Your task to perform on an android device: manage bookmarks in the chrome app Image 0: 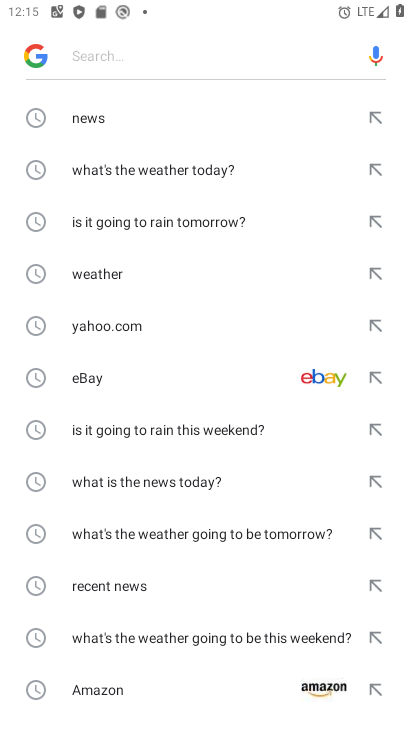
Step 0: press home button
Your task to perform on an android device: manage bookmarks in the chrome app Image 1: 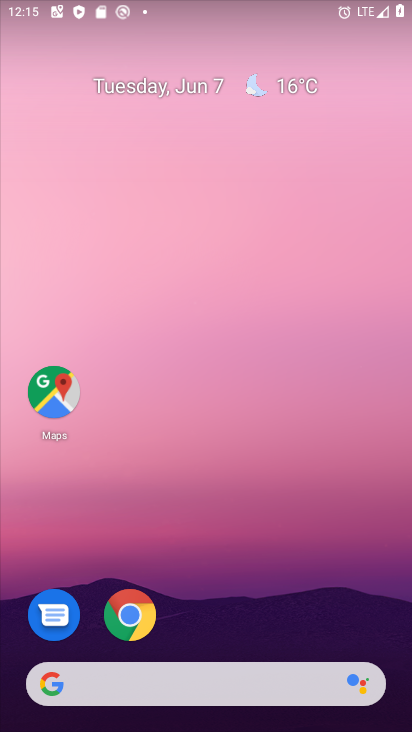
Step 1: click (126, 606)
Your task to perform on an android device: manage bookmarks in the chrome app Image 2: 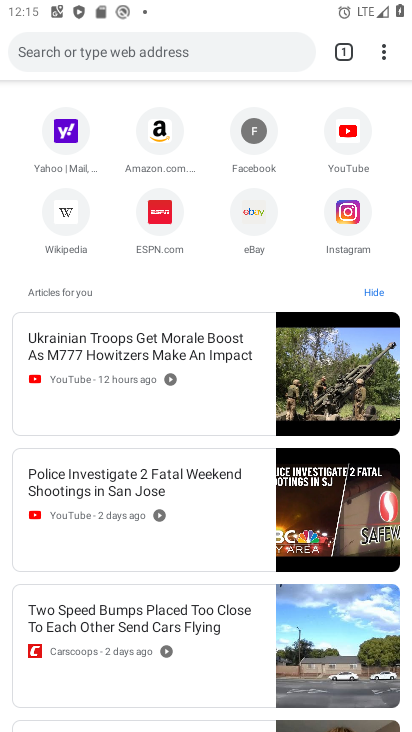
Step 2: click (383, 47)
Your task to perform on an android device: manage bookmarks in the chrome app Image 3: 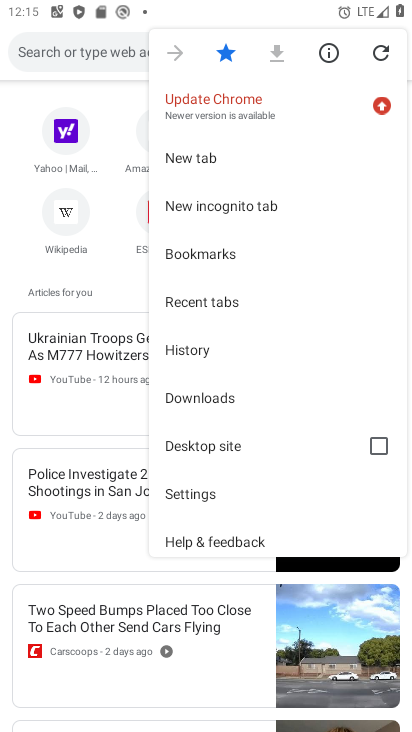
Step 3: click (243, 247)
Your task to perform on an android device: manage bookmarks in the chrome app Image 4: 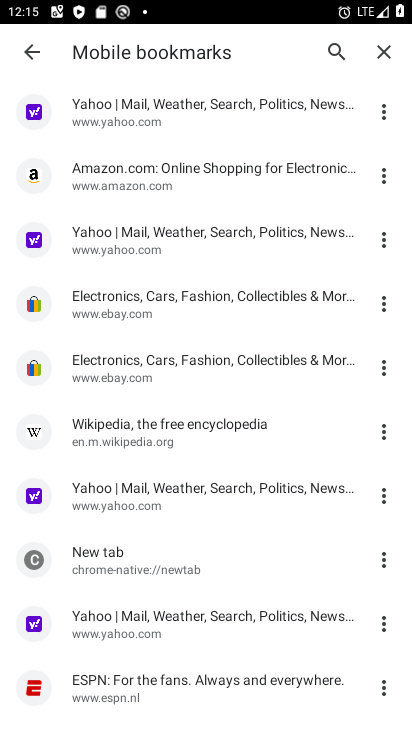
Step 4: click (379, 171)
Your task to perform on an android device: manage bookmarks in the chrome app Image 5: 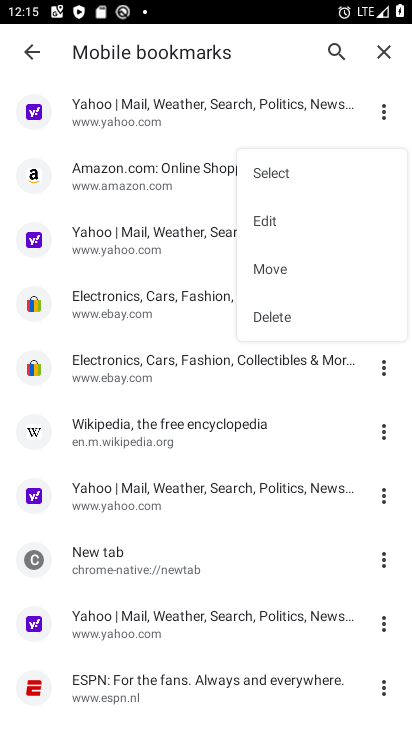
Step 5: click (276, 318)
Your task to perform on an android device: manage bookmarks in the chrome app Image 6: 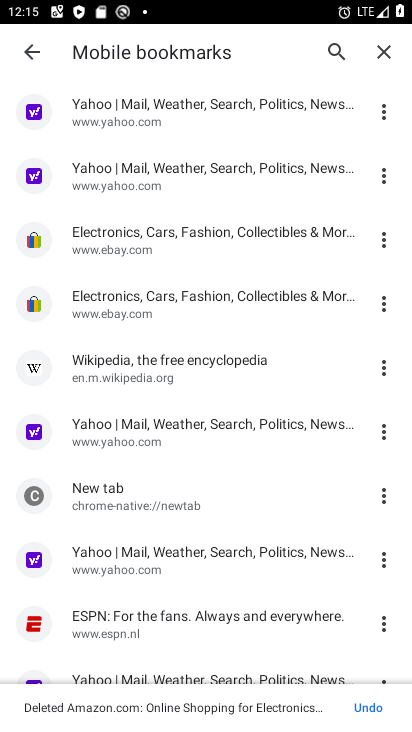
Step 6: task complete